Your task to perform on an android device: move a message to another label in the gmail app Image 0: 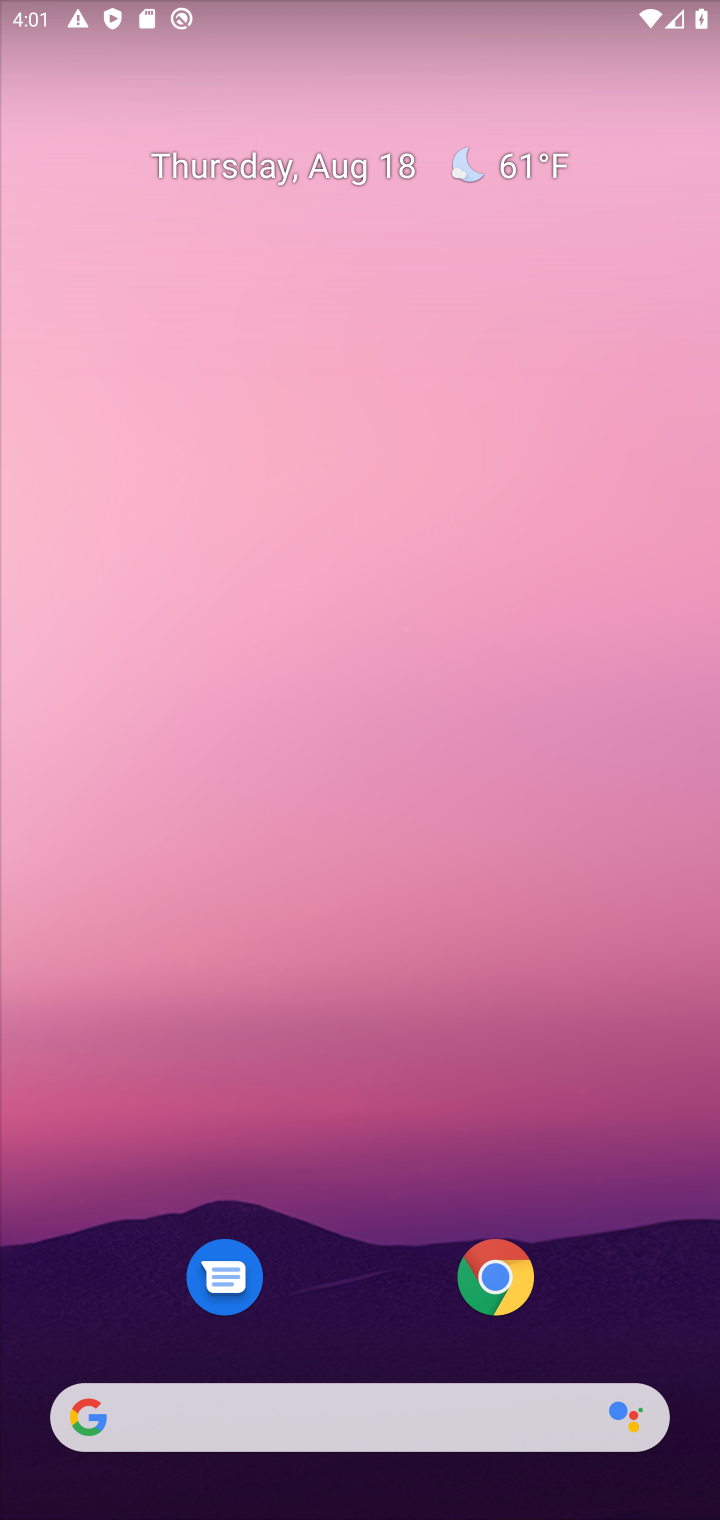
Step 0: click (43, 45)
Your task to perform on an android device: move a message to another label in the gmail app Image 1: 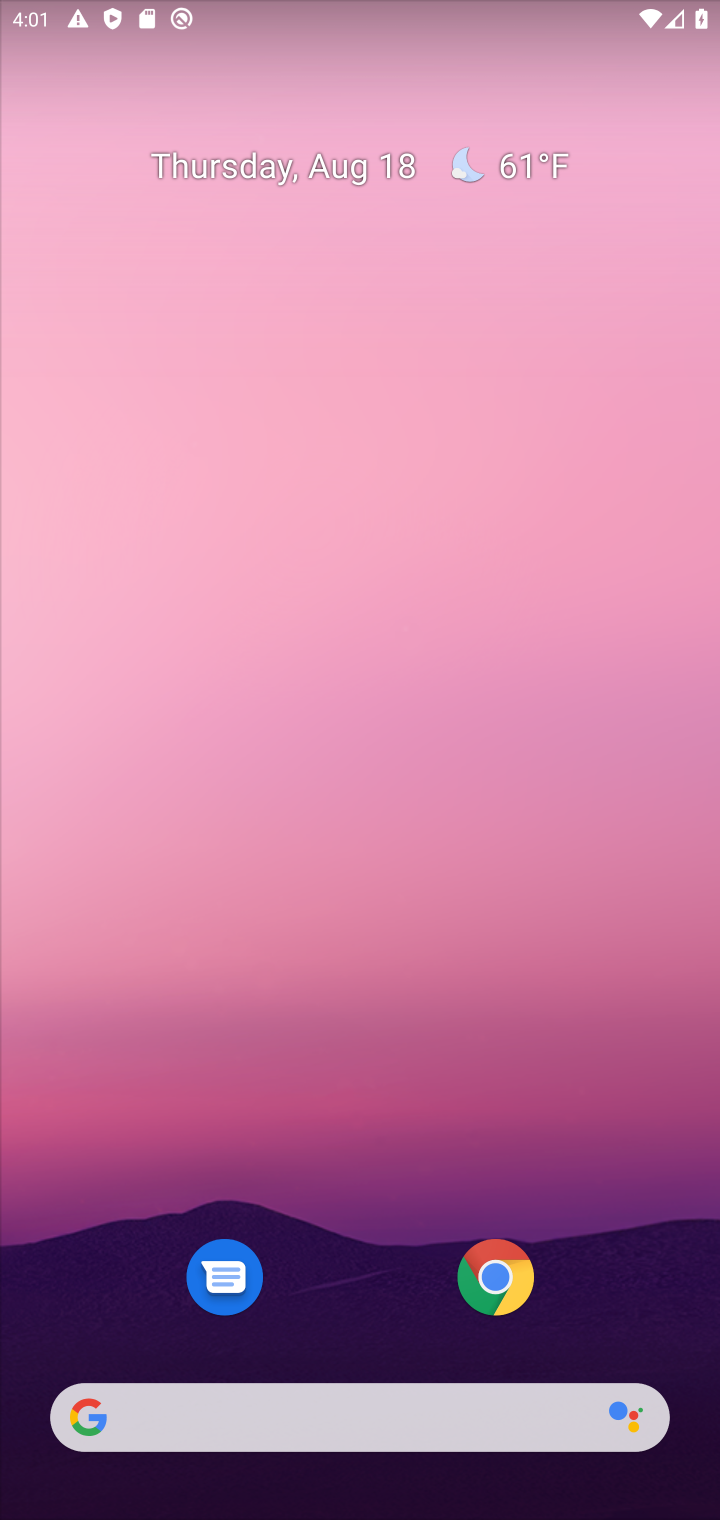
Step 1: task complete